Your task to perform on an android device: Open display settings Image 0: 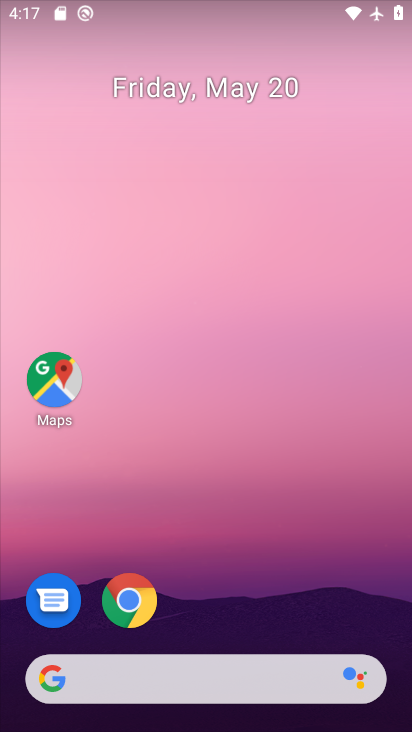
Step 0: drag from (282, 529) to (203, 27)
Your task to perform on an android device: Open display settings Image 1: 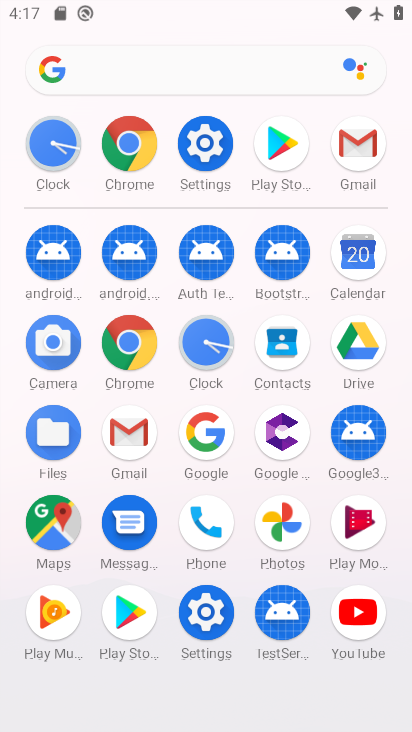
Step 1: click (206, 596)
Your task to perform on an android device: Open display settings Image 2: 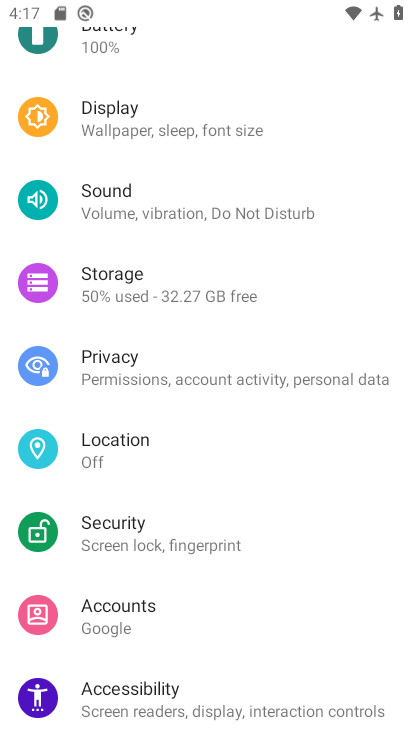
Step 2: click (217, 116)
Your task to perform on an android device: Open display settings Image 3: 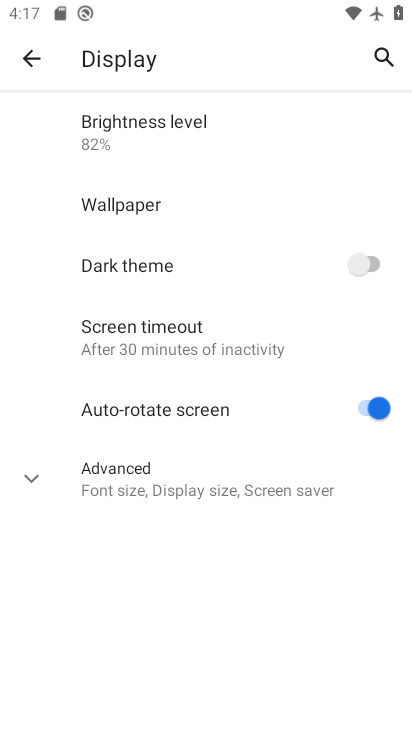
Step 3: task complete